Your task to perform on an android device: change your default location settings in chrome Image 0: 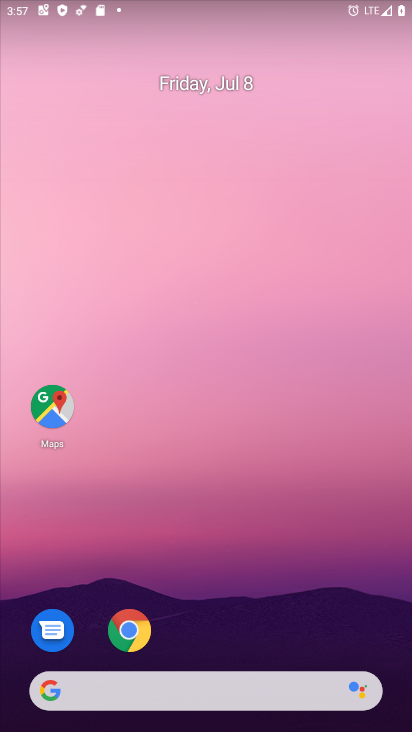
Step 0: click (130, 631)
Your task to perform on an android device: change your default location settings in chrome Image 1: 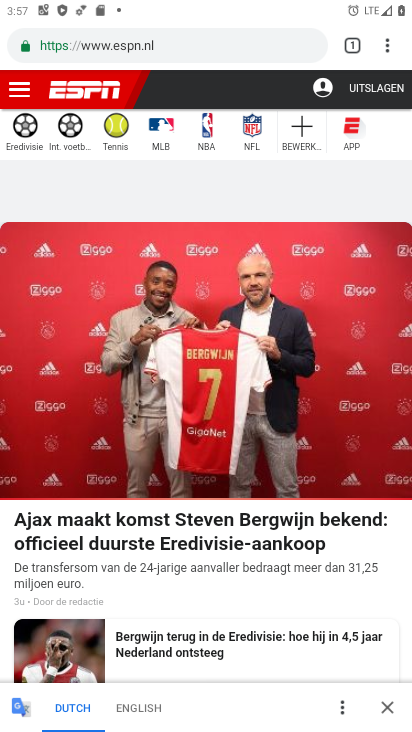
Step 1: click (387, 45)
Your task to perform on an android device: change your default location settings in chrome Image 2: 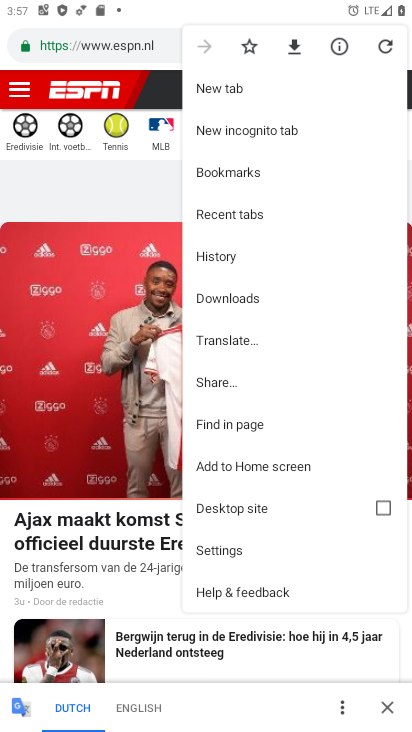
Step 2: click (219, 552)
Your task to perform on an android device: change your default location settings in chrome Image 3: 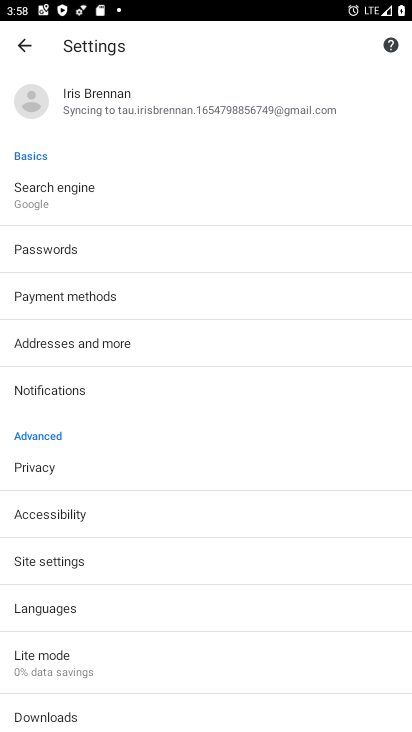
Step 3: click (52, 565)
Your task to perform on an android device: change your default location settings in chrome Image 4: 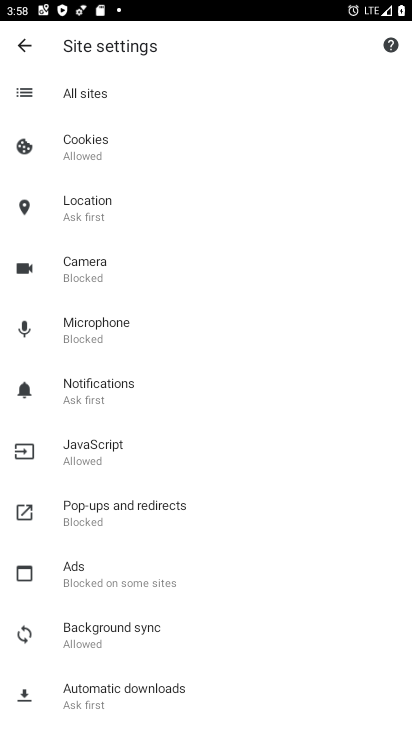
Step 4: click (99, 206)
Your task to perform on an android device: change your default location settings in chrome Image 5: 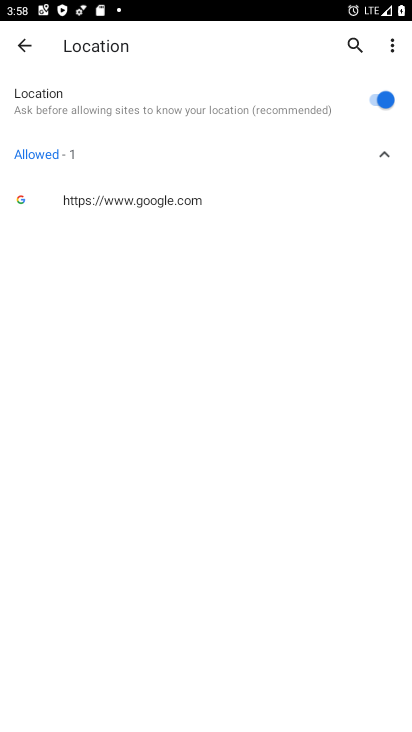
Step 5: click (381, 104)
Your task to perform on an android device: change your default location settings in chrome Image 6: 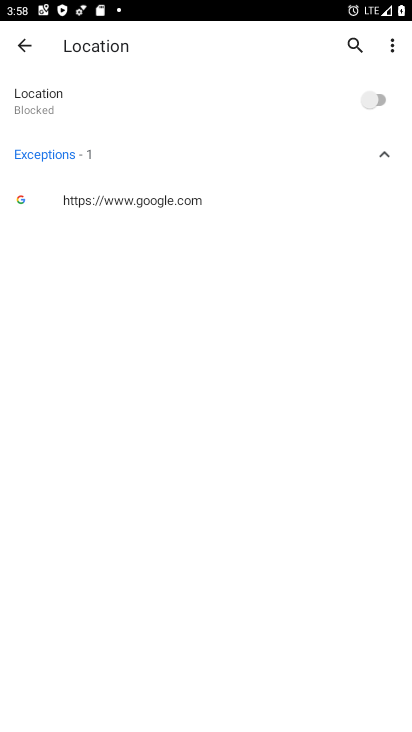
Step 6: task complete